Your task to perform on an android device: check android version Image 0: 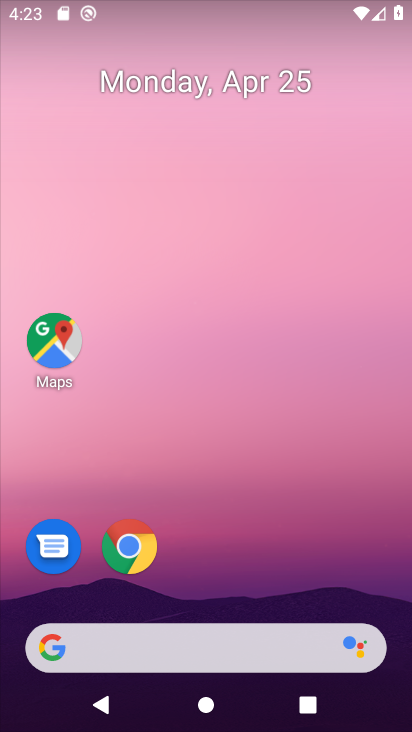
Step 0: drag from (347, 447) to (409, 79)
Your task to perform on an android device: check android version Image 1: 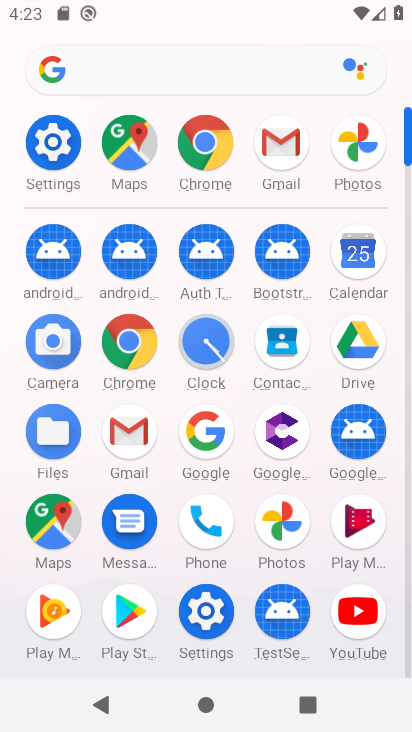
Step 1: click (48, 142)
Your task to perform on an android device: check android version Image 2: 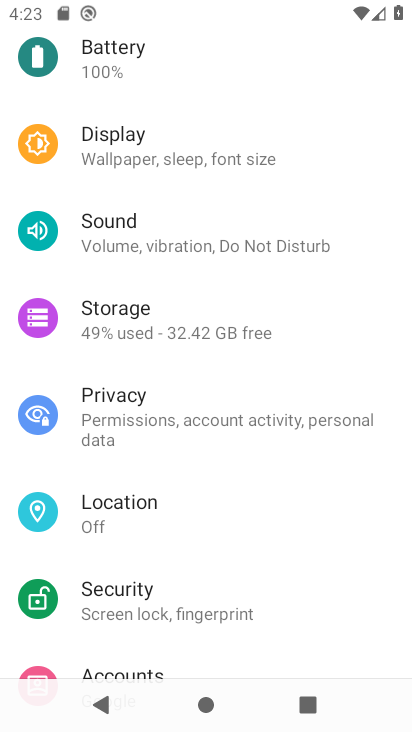
Step 2: drag from (219, 480) to (367, 203)
Your task to perform on an android device: check android version Image 3: 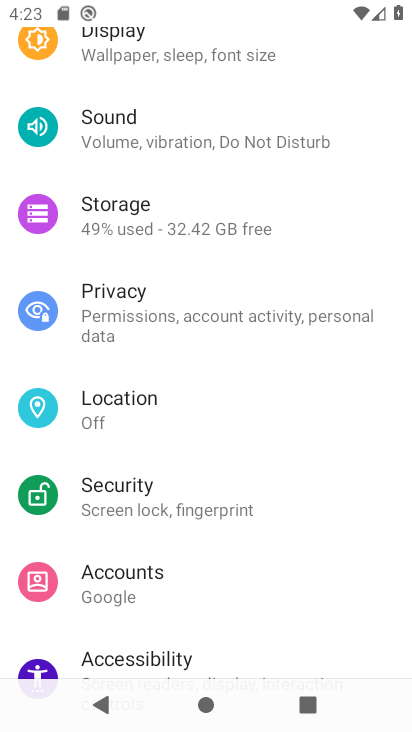
Step 3: drag from (361, 430) to (409, 172)
Your task to perform on an android device: check android version Image 4: 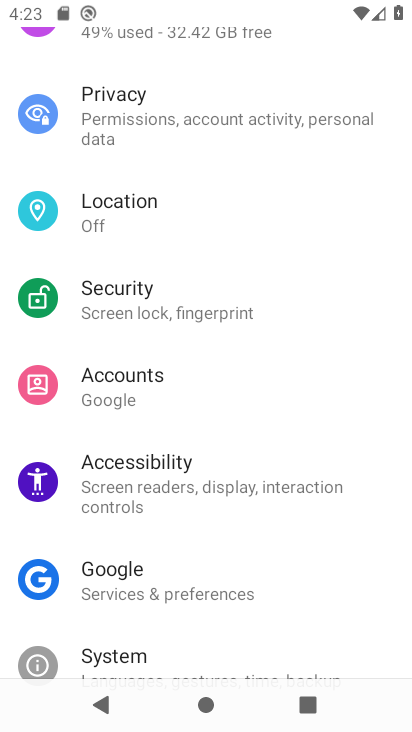
Step 4: drag from (229, 579) to (309, 207)
Your task to perform on an android device: check android version Image 5: 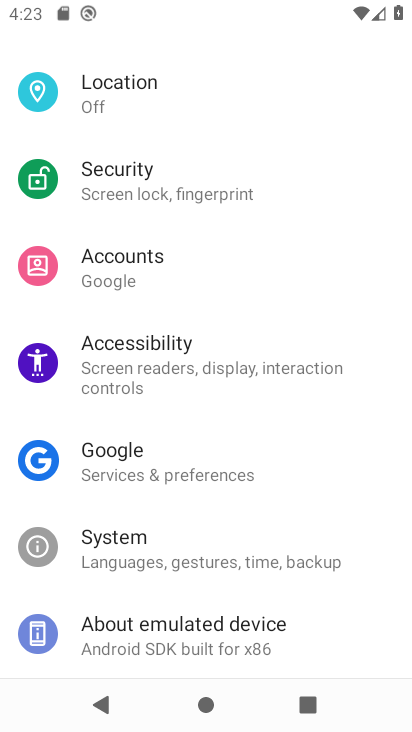
Step 5: click (197, 625)
Your task to perform on an android device: check android version Image 6: 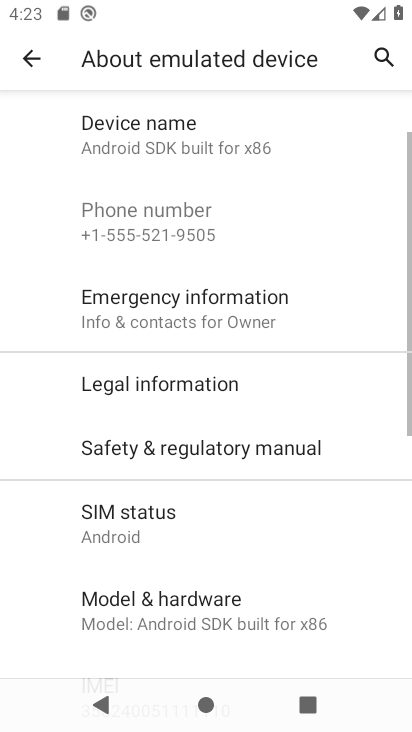
Step 6: drag from (188, 518) to (342, 148)
Your task to perform on an android device: check android version Image 7: 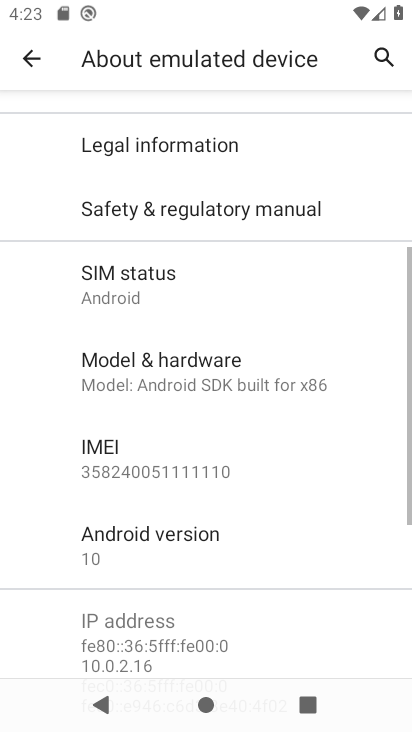
Step 7: click (214, 570)
Your task to perform on an android device: check android version Image 8: 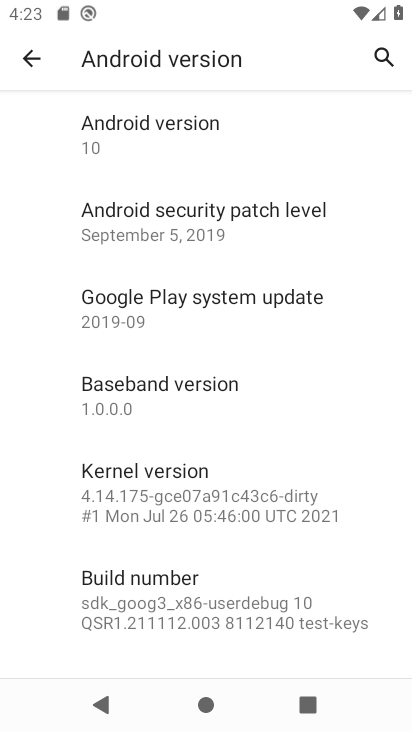
Step 8: task complete